Your task to perform on an android device: Open the calendar and show me this week's events? Image 0: 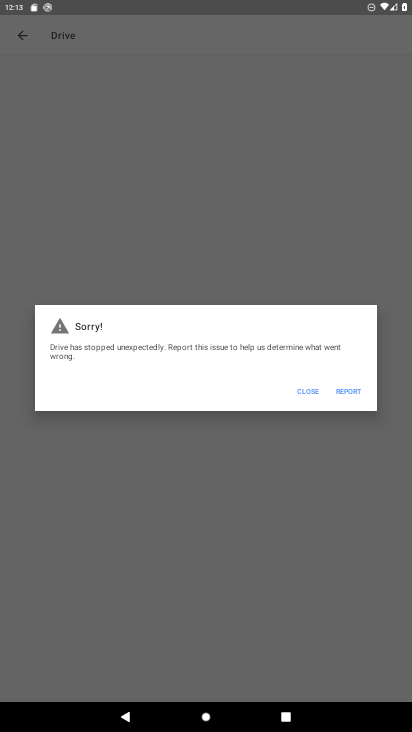
Step 0: press home button
Your task to perform on an android device: Open the calendar and show me this week's events? Image 1: 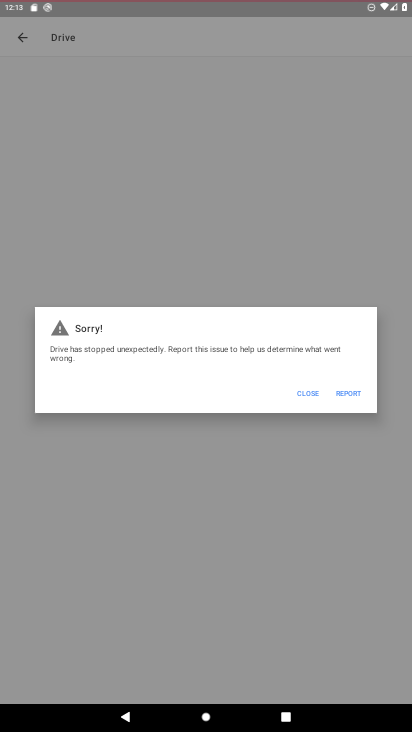
Step 1: drag from (122, 624) to (295, 58)
Your task to perform on an android device: Open the calendar and show me this week's events? Image 2: 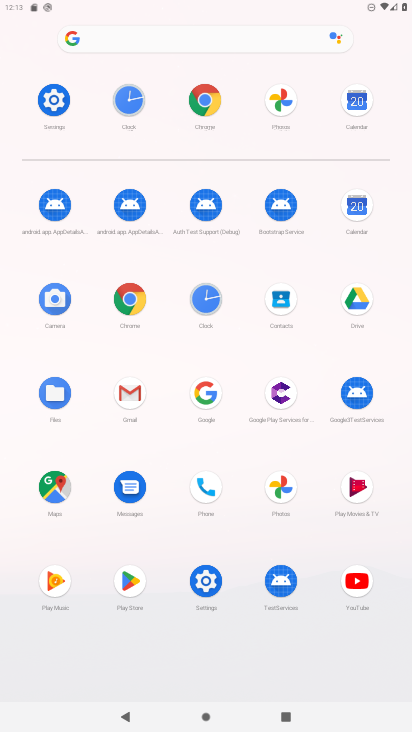
Step 2: click (351, 196)
Your task to perform on an android device: Open the calendar and show me this week's events? Image 3: 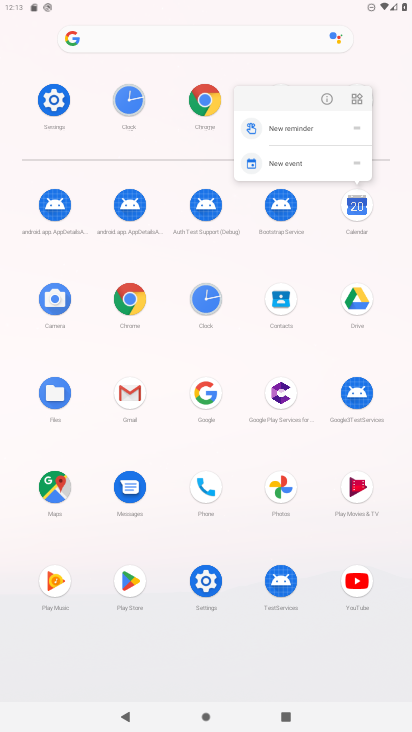
Step 3: click (325, 98)
Your task to perform on an android device: Open the calendar and show me this week's events? Image 4: 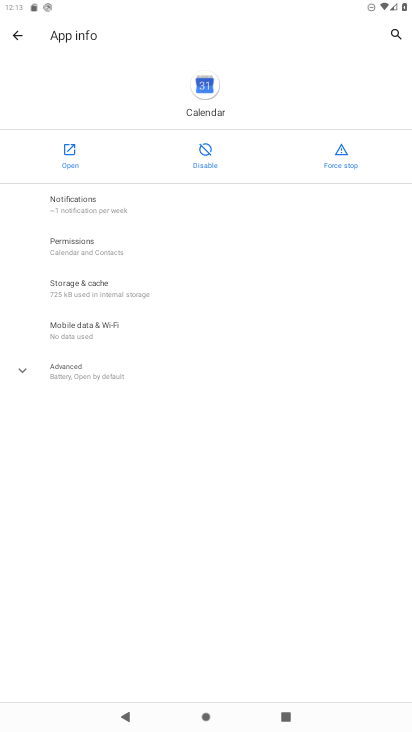
Step 4: click (70, 157)
Your task to perform on an android device: Open the calendar and show me this week's events? Image 5: 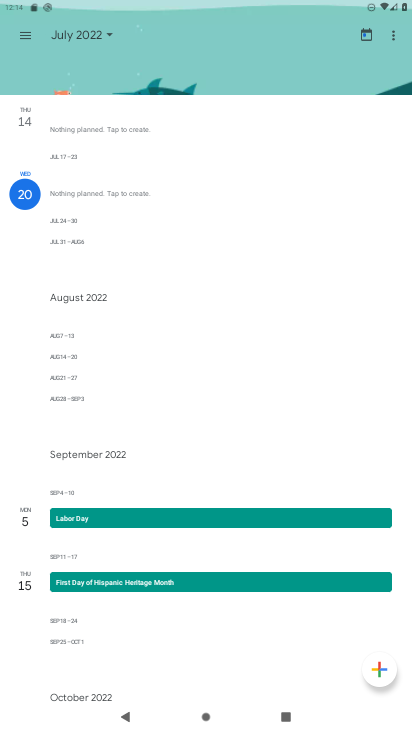
Step 5: click (372, 40)
Your task to perform on an android device: Open the calendar and show me this week's events? Image 6: 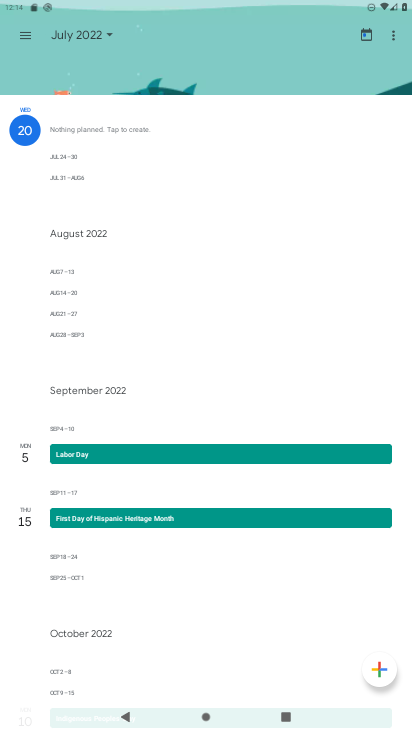
Step 6: click (74, 40)
Your task to perform on an android device: Open the calendar and show me this week's events? Image 7: 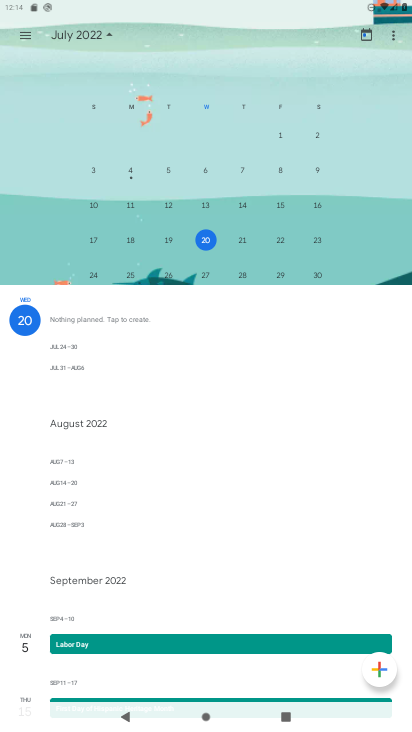
Step 7: click (314, 238)
Your task to perform on an android device: Open the calendar and show me this week's events? Image 8: 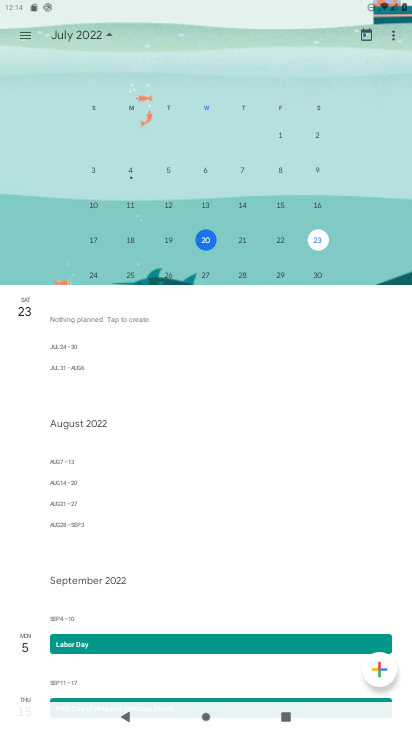
Step 8: click (317, 241)
Your task to perform on an android device: Open the calendar and show me this week's events? Image 9: 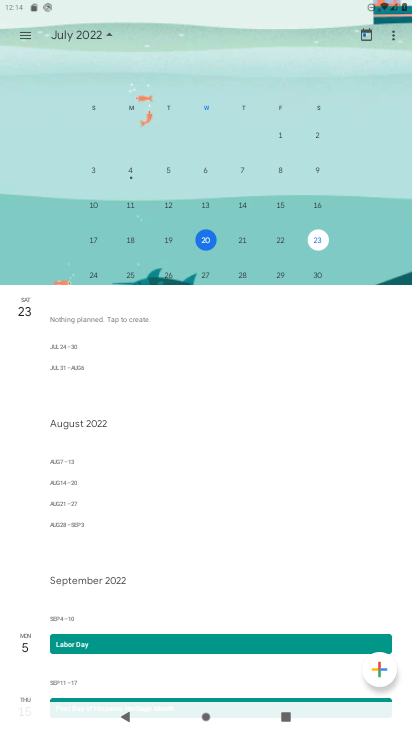
Step 9: task complete